Your task to perform on an android device: check out phone information Image 0: 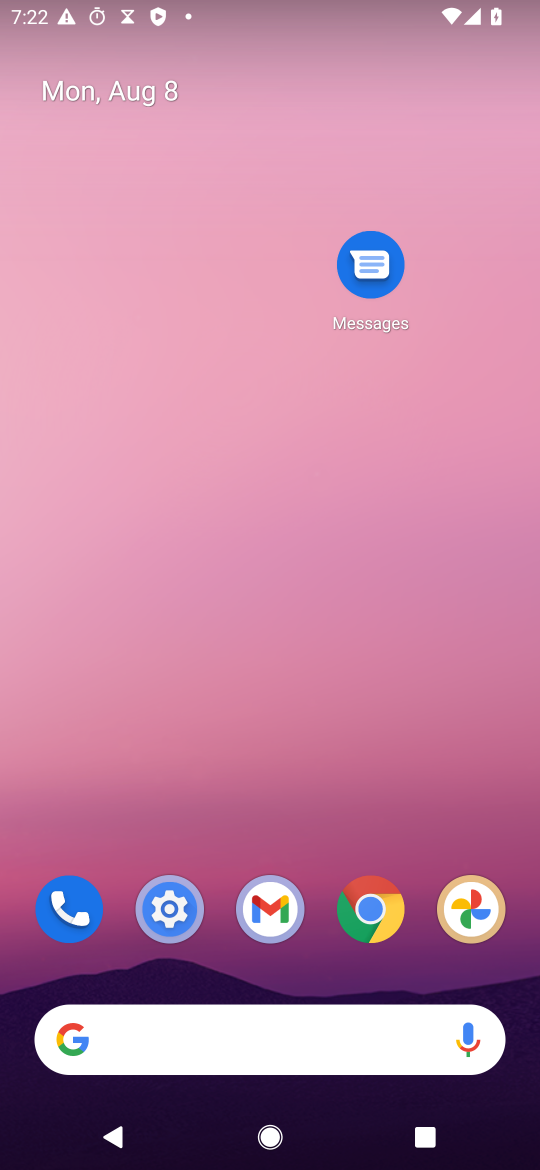
Step 0: press home button
Your task to perform on an android device: check out phone information Image 1: 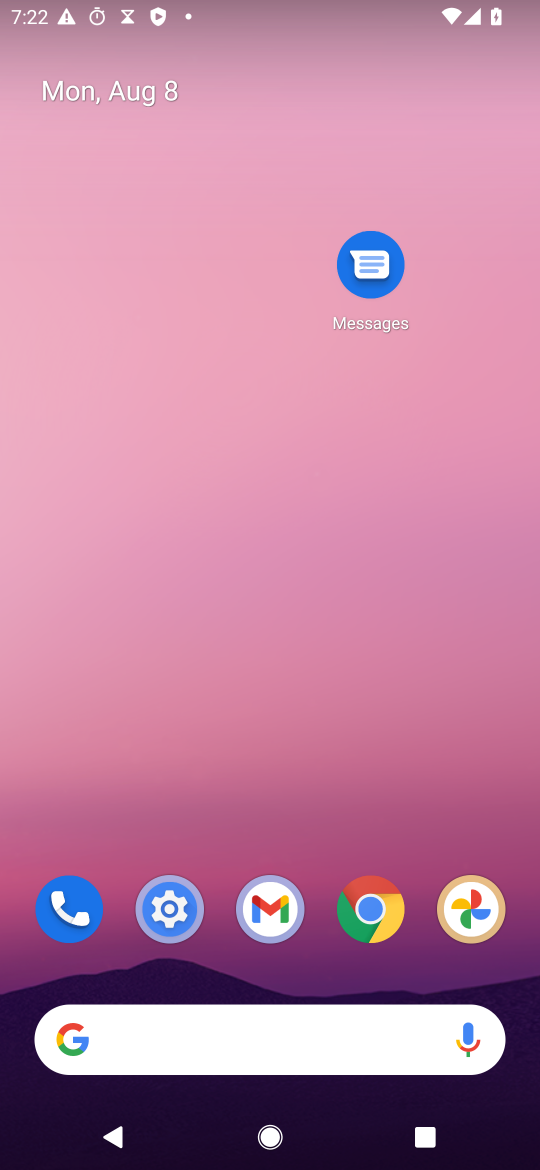
Step 1: click (175, 908)
Your task to perform on an android device: check out phone information Image 2: 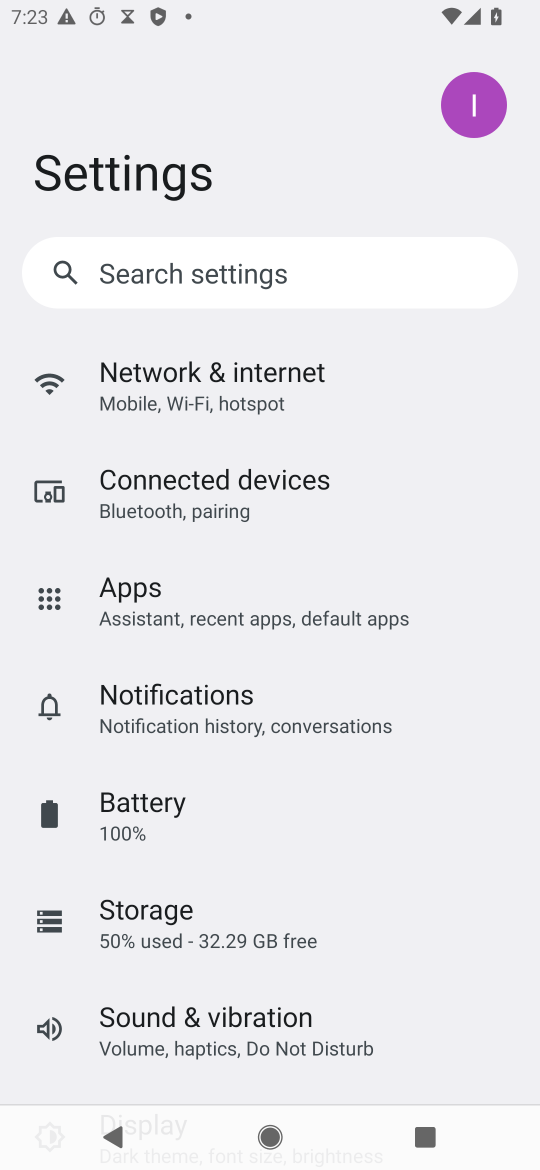
Step 2: drag from (351, 996) to (529, 44)
Your task to perform on an android device: check out phone information Image 3: 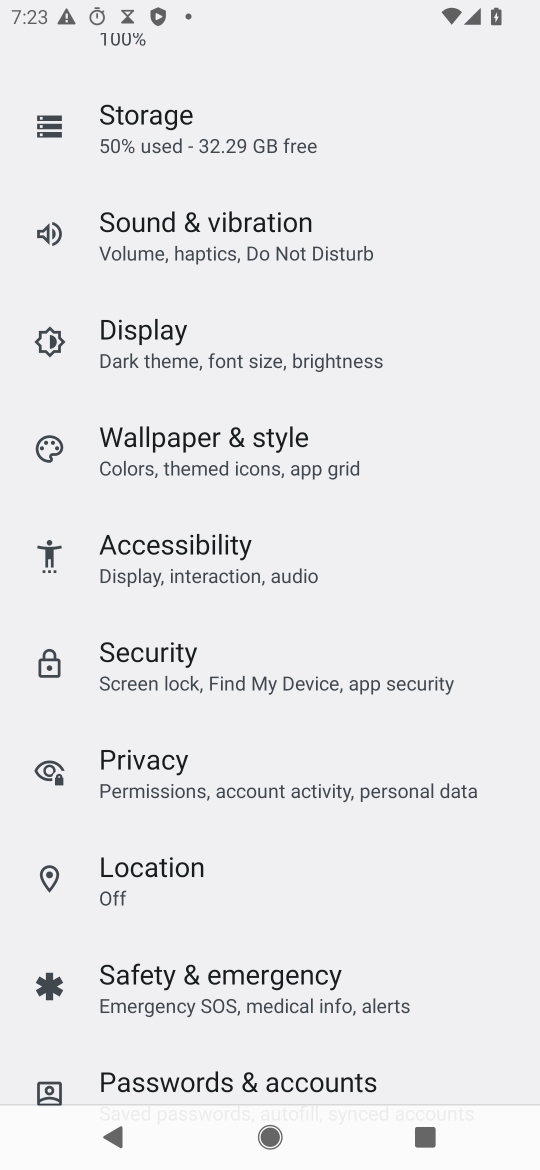
Step 3: drag from (320, 928) to (481, 25)
Your task to perform on an android device: check out phone information Image 4: 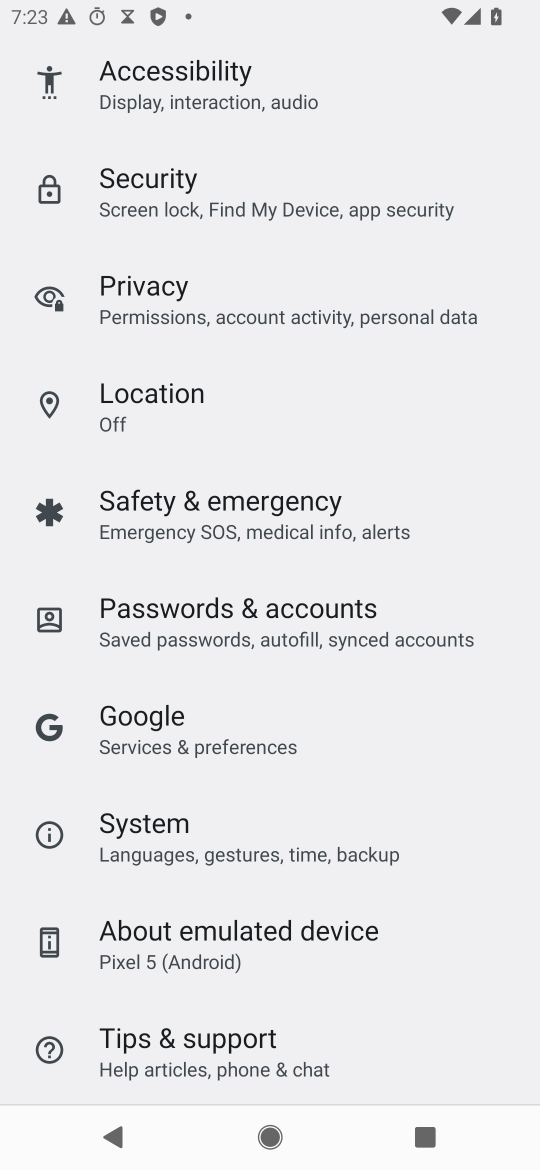
Step 4: click (273, 945)
Your task to perform on an android device: check out phone information Image 5: 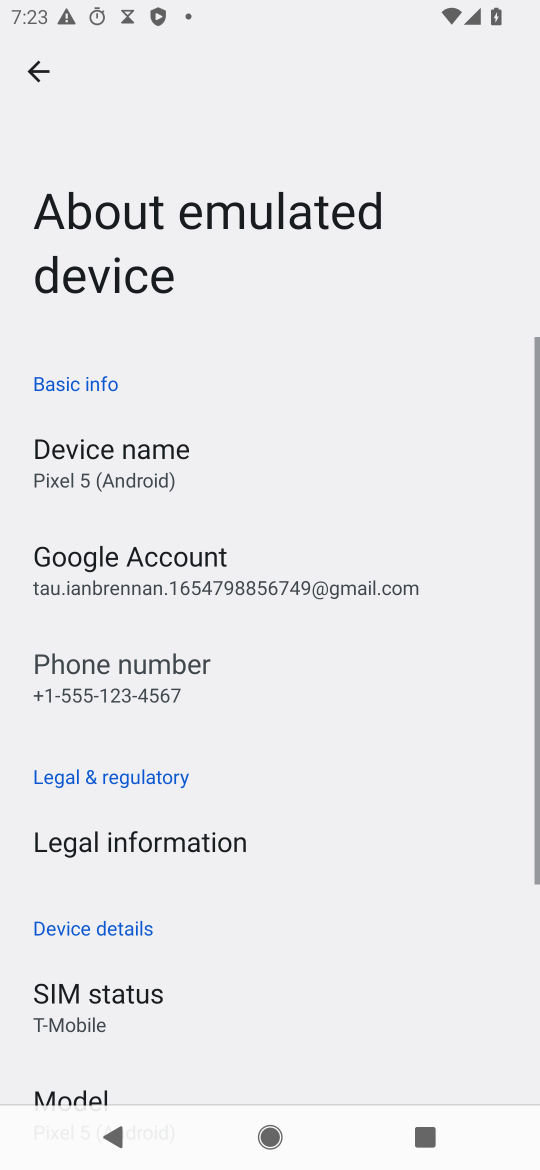
Step 5: task complete